Your task to perform on an android device: turn on bluetooth scan Image 0: 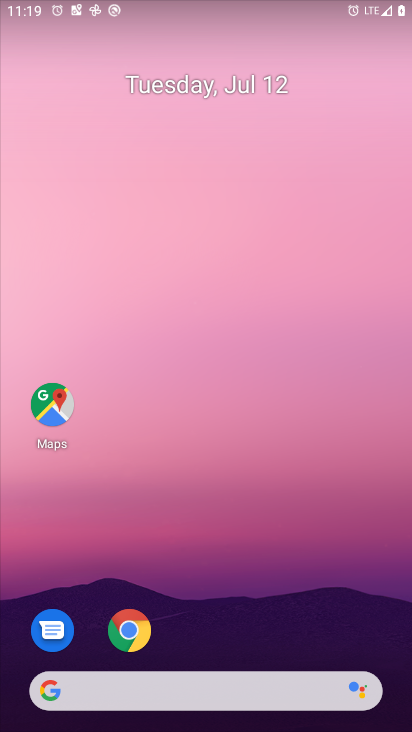
Step 0: press home button
Your task to perform on an android device: turn on bluetooth scan Image 1: 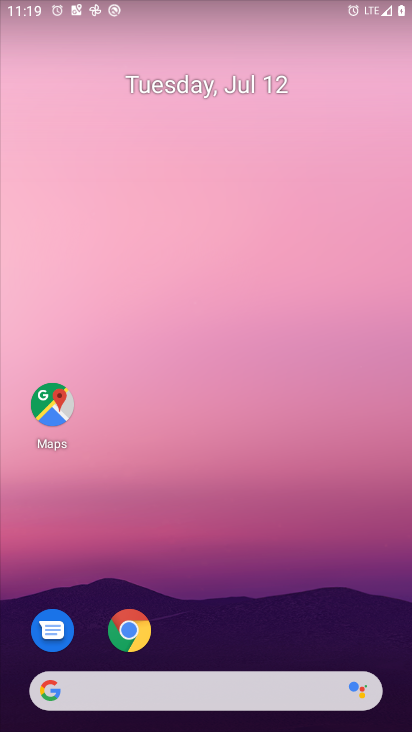
Step 1: drag from (242, 631) to (343, 2)
Your task to perform on an android device: turn on bluetooth scan Image 2: 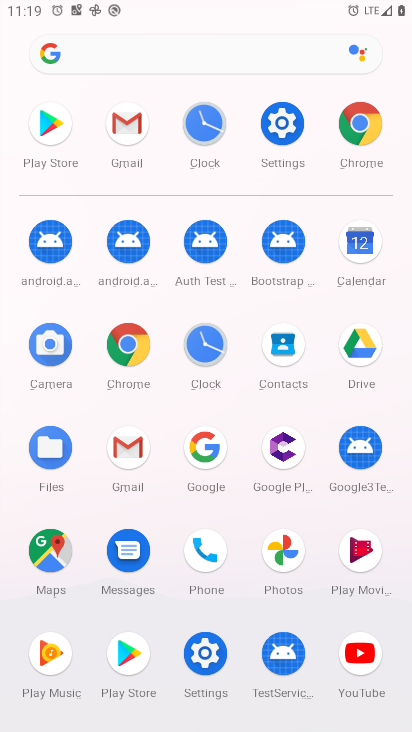
Step 2: click (278, 121)
Your task to perform on an android device: turn on bluetooth scan Image 3: 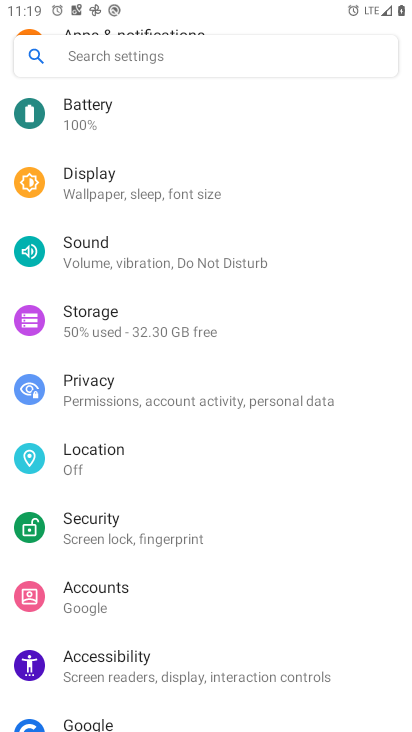
Step 3: click (83, 459)
Your task to perform on an android device: turn on bluetooth scan Image 4: 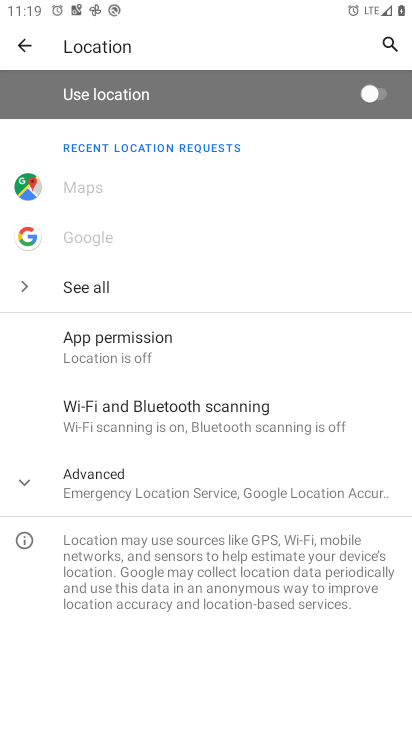
Step 4: click (156, 415)
Your task to perform on an android device: turn on bluetooth scan Image 5: 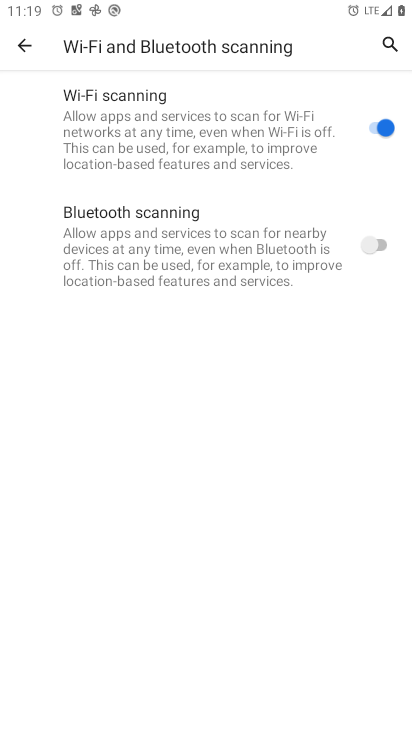
Step 5: click (366, 249)
Your task to perform on an android device: turn on bluetooth scan Image 6: 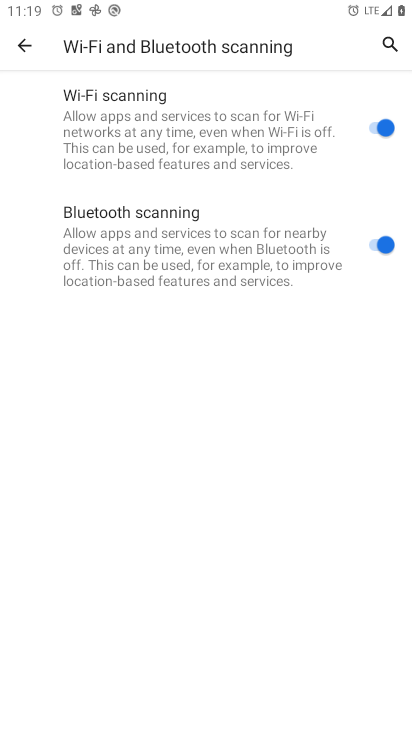
Step 6: task complete